Your task to perform on an android device: toggle airplane mode Image 0: 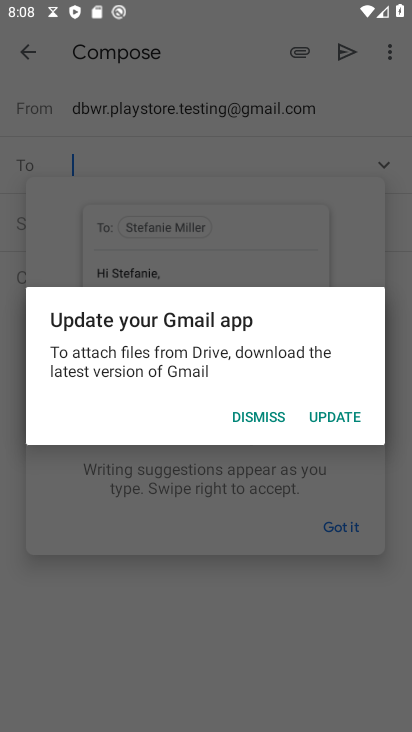
Step 0: press home button
Your task to perform on an android device: toggle airplane mode Image 1: 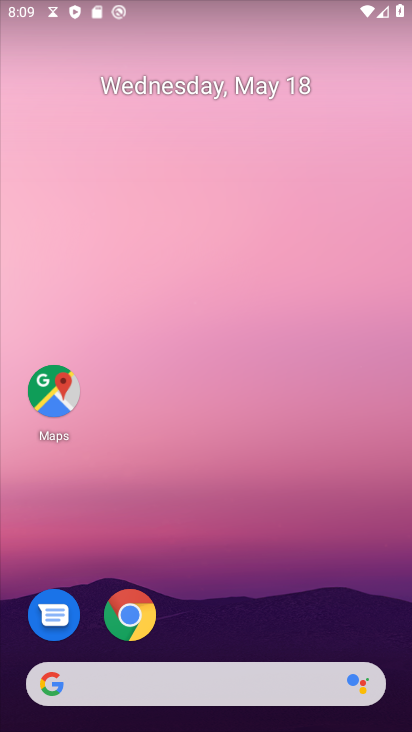
Step 1: drag from (285, 454) to (295, 36)
Your task to perform on an android device: toggle airplane mode Image 2: 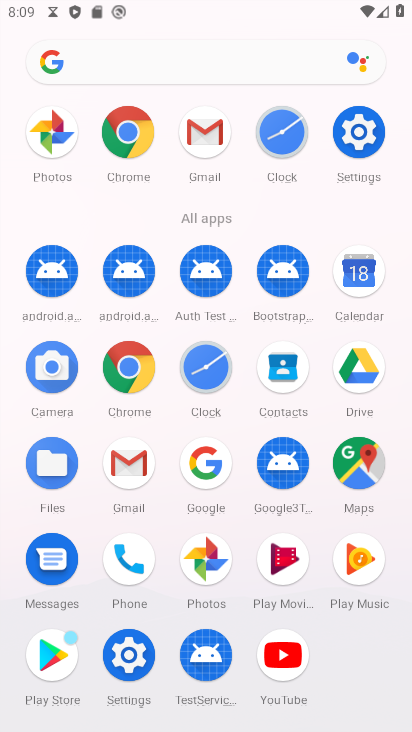
Step 2: click (371, 125)
Your task to perform on an android device: toggle airplane mode Image 3: 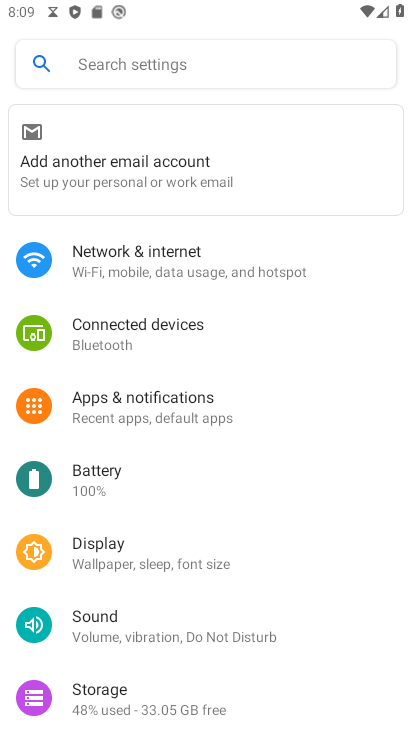
Step 3: click (178, 261)
Your task to perform on an android device: toggle airplane mode Image 4: 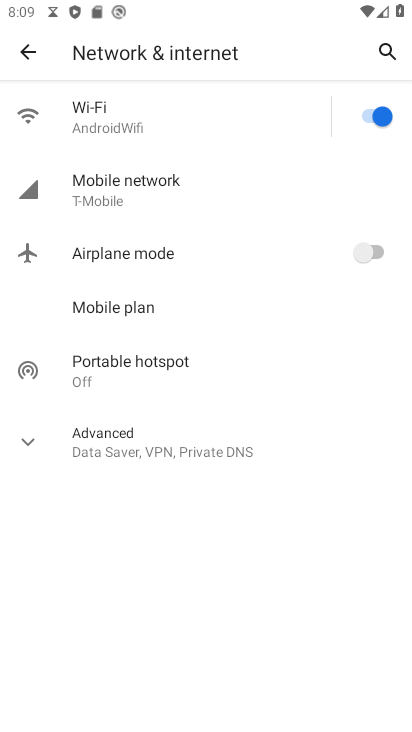
Step 4: click (372, 249)
Your task to perform on an android device: toggle airplane mode Image 5: 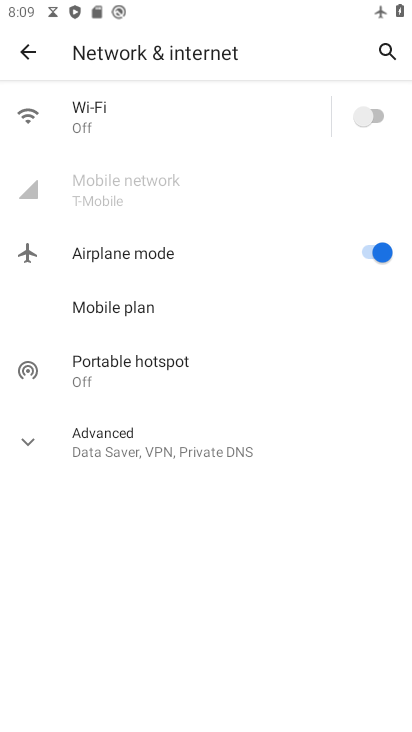
Step 5: task complete